Your task to perform on an android device: open app "Reddit" (install if not already installed) and enter user name: "issues@yahoo.com" and password: "belt" Image 0: 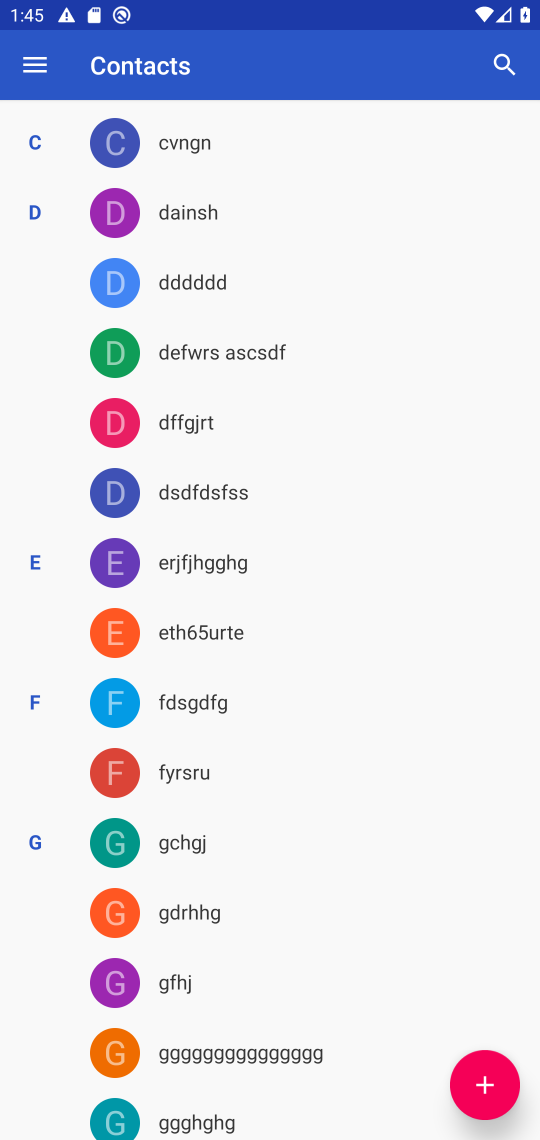
Step 0: press home button
Your task to perform on an android device: open app "Reddit" (install if not already installed) and enter user name: "issues@yahoo.com" and password: "belt" Image 1: 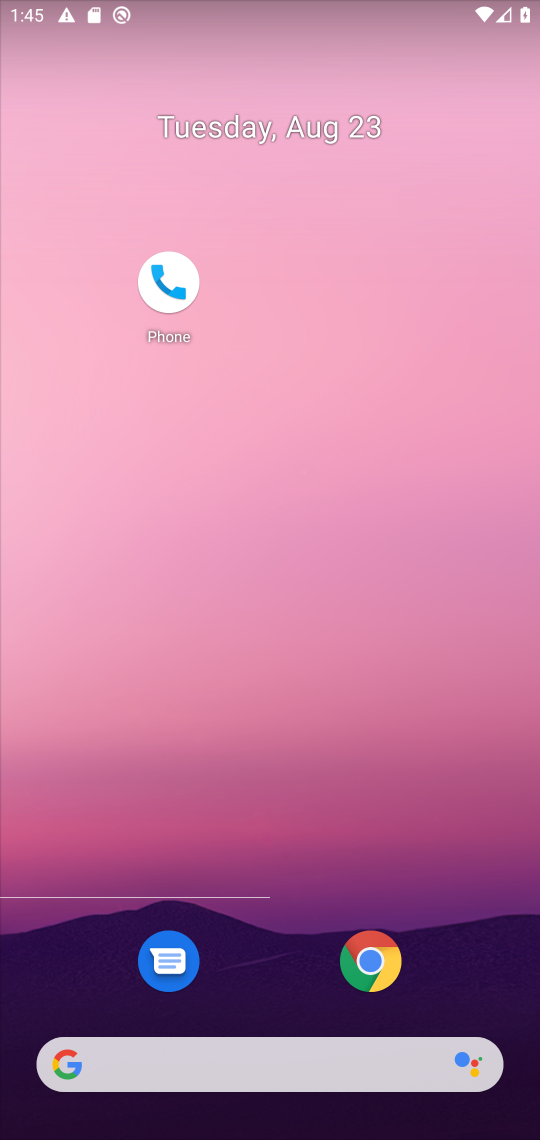
Step 1: drag from (241, 993) to (271, 198)
Your task to perform on an android device: open app "Reddit" (install if not already installed) and enter user name: "issues@yahoo.com" and password: "belt" Image 2: 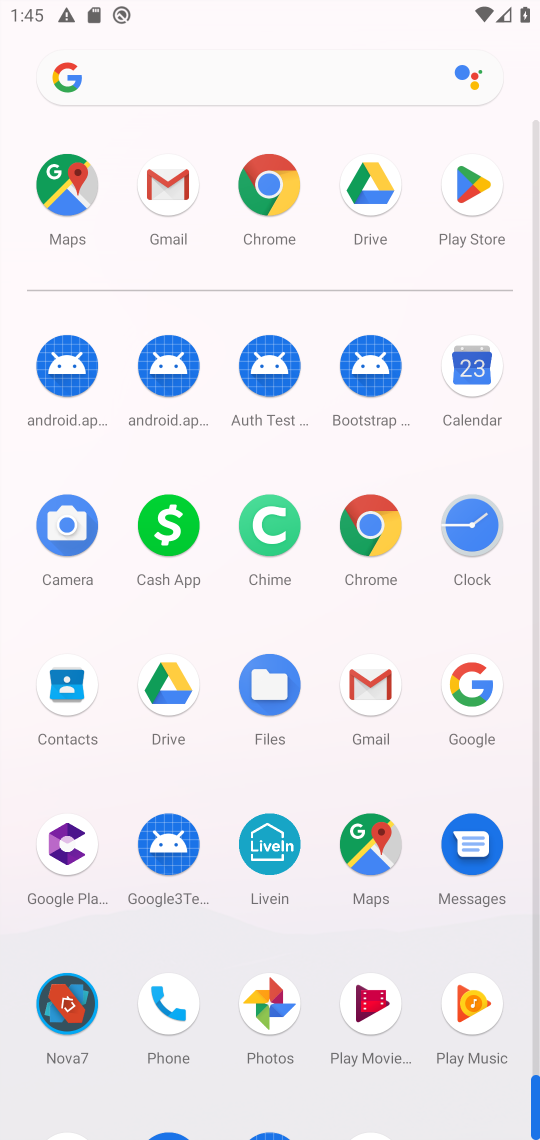
Step 2: click (476, 193)
Your task to perform on an android device: open app "Reddit" (install if not already installed) and enter user name: "issues@yahoo.com" and password: "belt" Image 3: 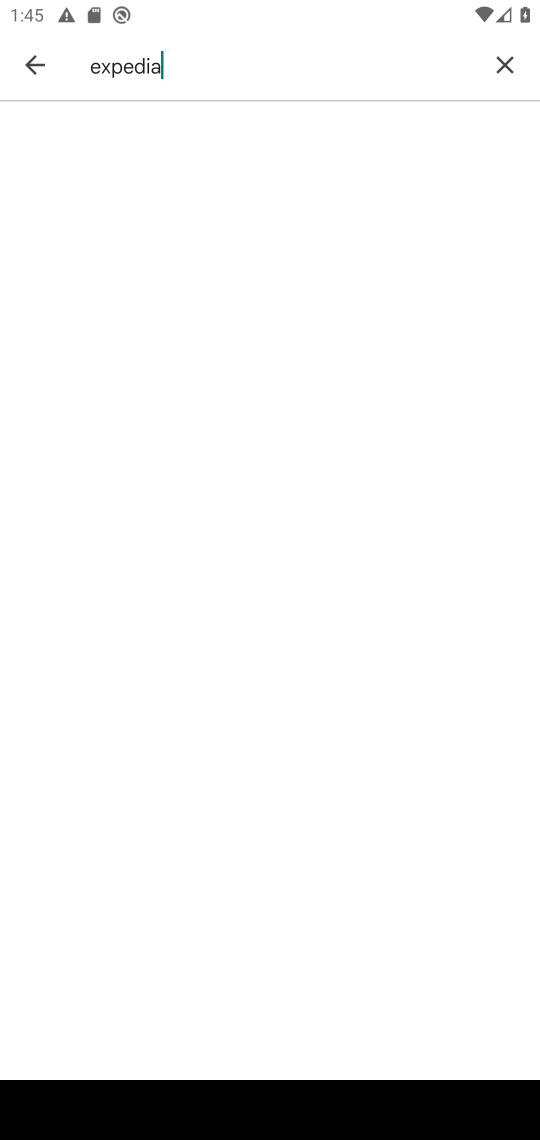
Step 3: click (493, 75)
Your task to perform on an android device: open app "Reddit" (install if not already installed) and enter user name: "issues@yahoo.com" and password: "belt" Image 4: 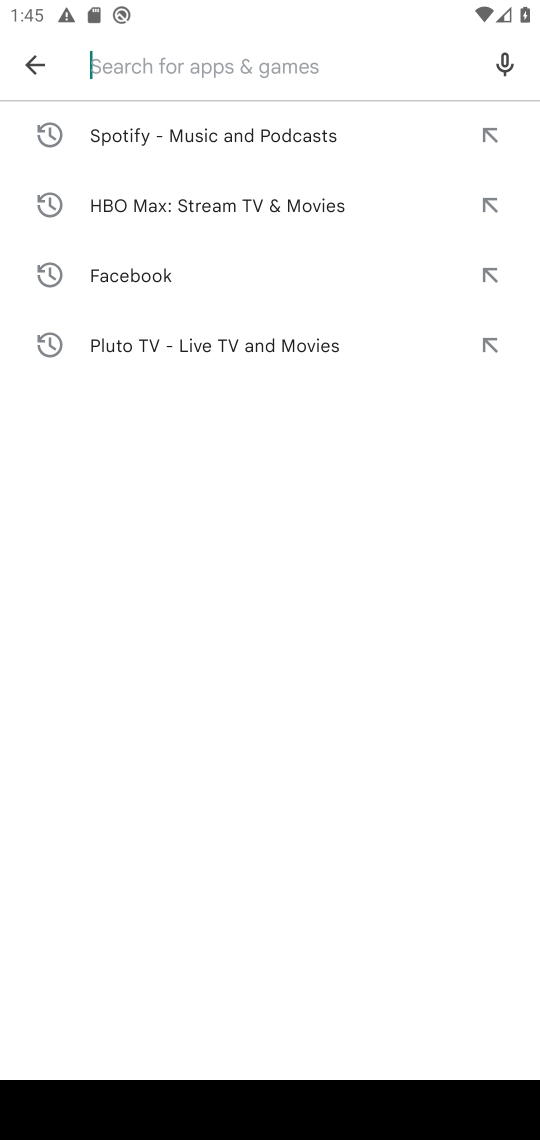
Step 4: type "reddit"
Your task to perform on an android device: open app "Reddit" (install if not already installed) and enter user name: "issues@yahoo.com" and password: "belt" Image 5: 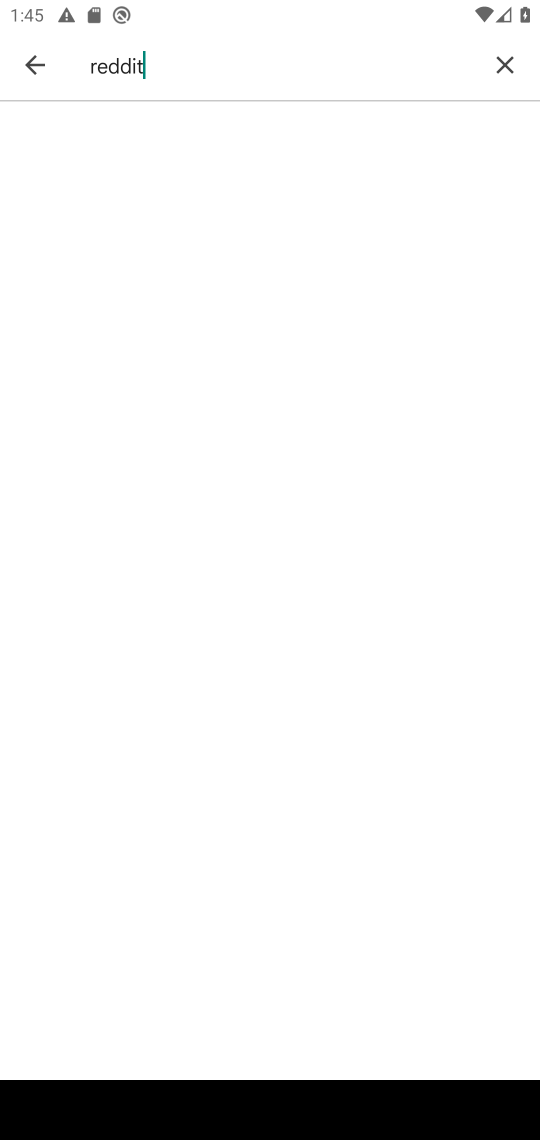
Step 5: task complete